Your task to perform on an android device: Clear the cart on walmart. Image 0: 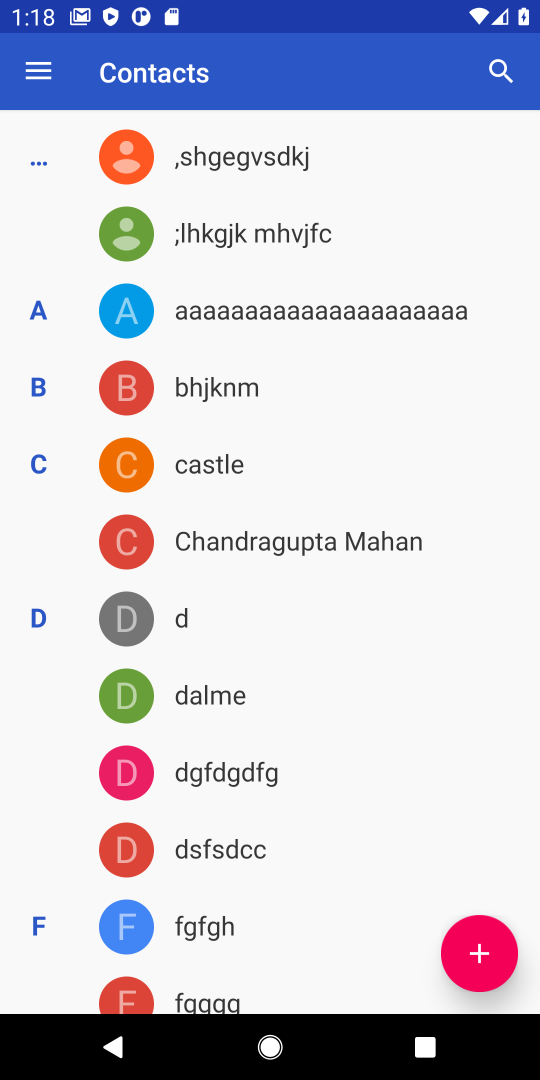
Step 0: press home button
Your task to perform on an android device: Clear the cart on walmart. Image 1: 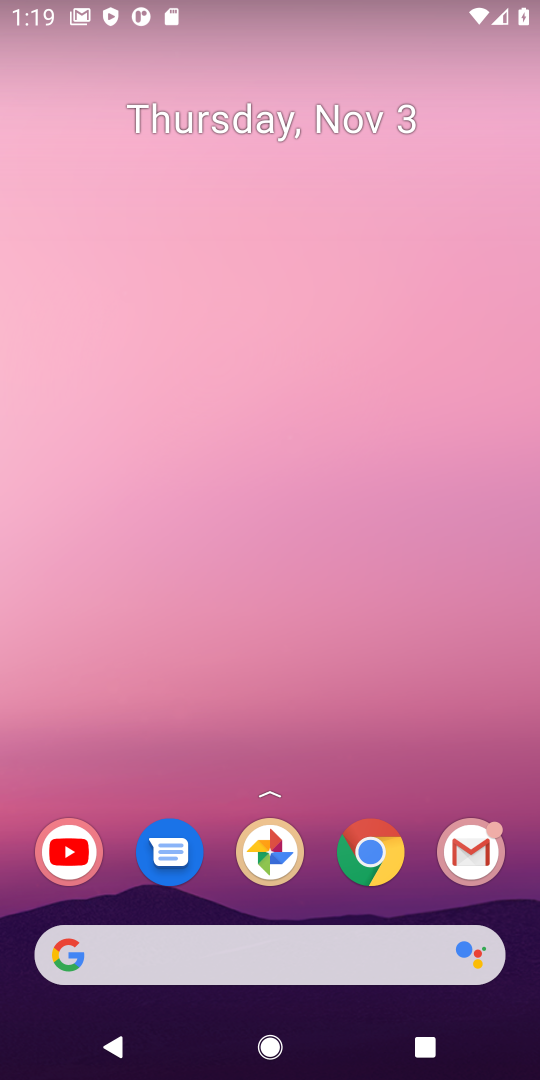
Step 1: click (371, 870)
Your task to perform on an android device: Clear the cart on walmart. Image 2: 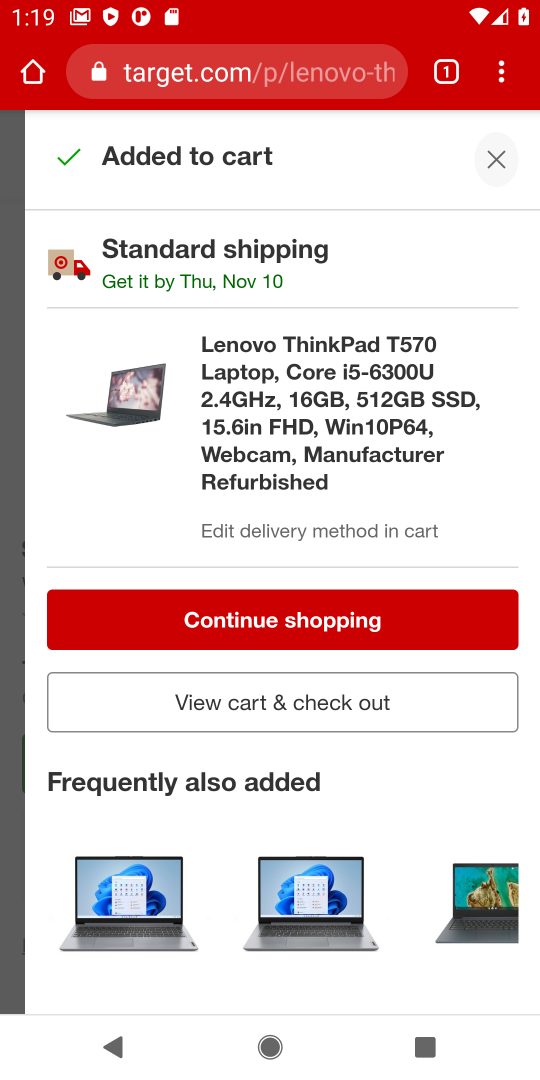
Step 2: click (226, 93)
Your task to perform on an android device: Clear the cart on walmart. Image 3: 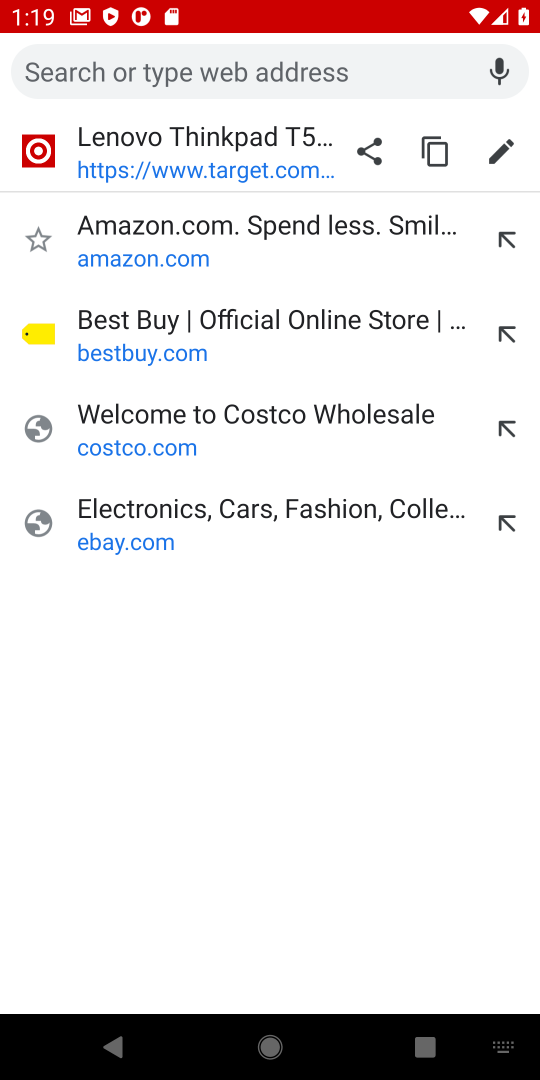
Step 3: type "walmart.com"
Your task to perform on an android device: Clear the cart on walmart. Image 4: 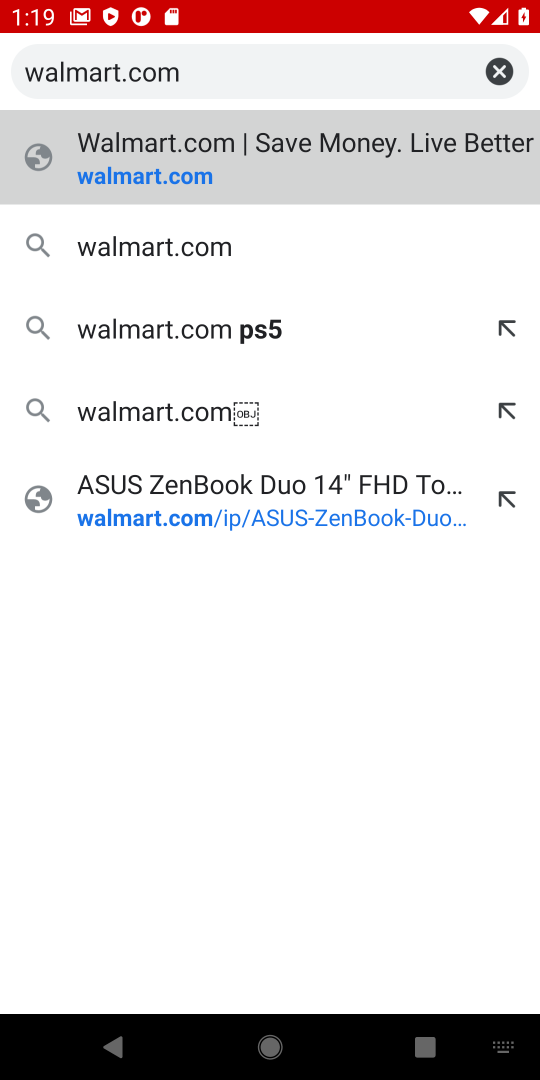
Step 4: click (137, 183)
Your task to perform on an android device: Clear the cart on walmart. Image 5: 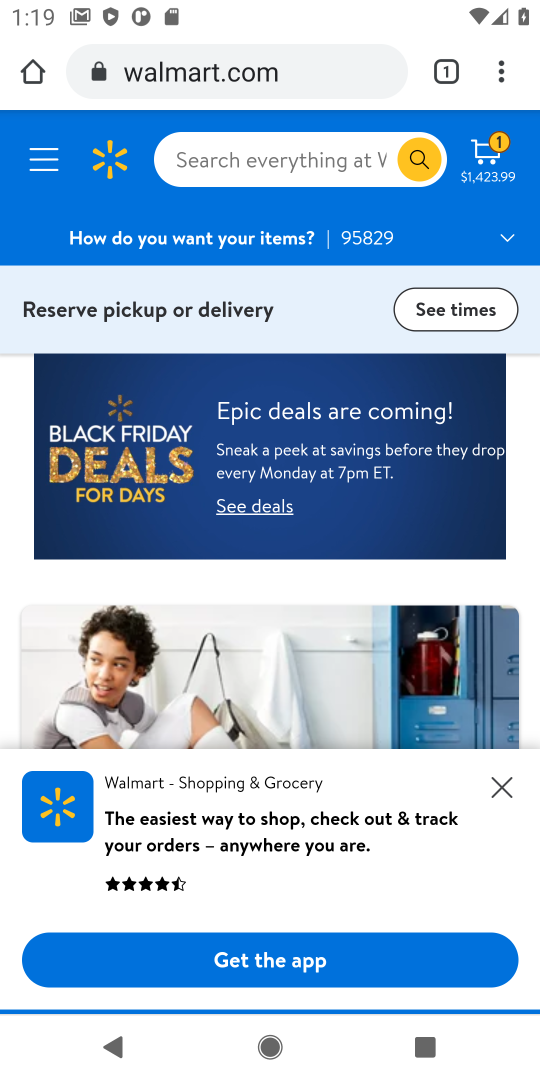
Step 5: click (493, 153)
Your task to perform on an android device: Clear the cart on walmart. Image 6: 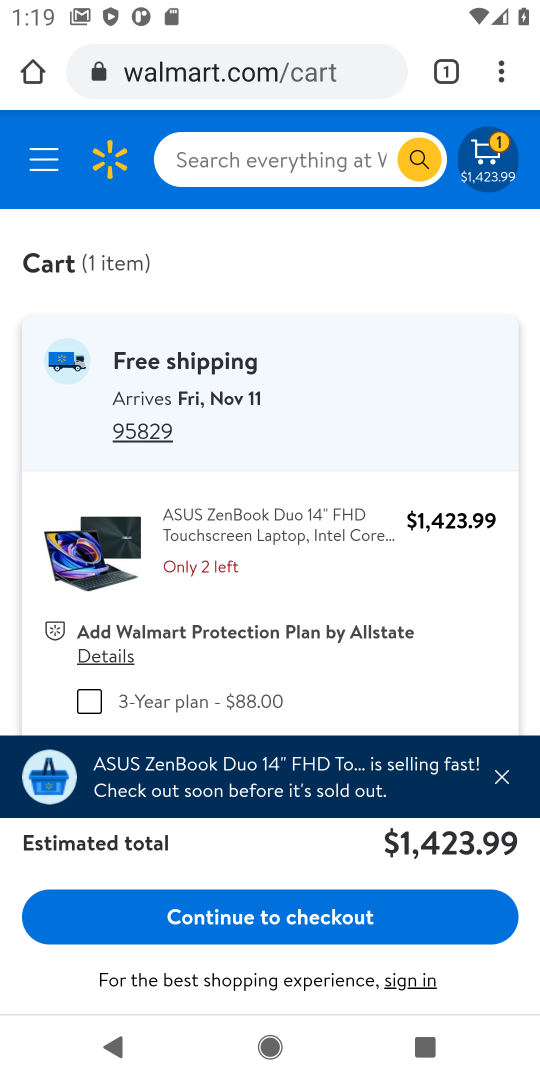
Step 6: drag from (301, 592) to (329, 372)
Your task to perform on an android device: Clear the cart on walmart. Image 7: 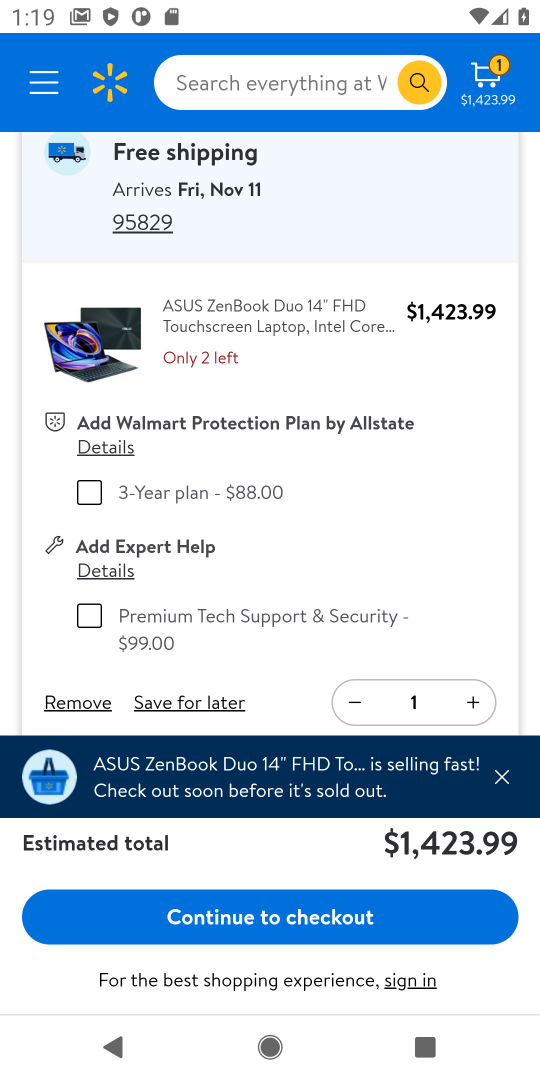
Step 7: click (76, 706)
Your task to perform on an android device: Clear the cart on walmart. Image 8: 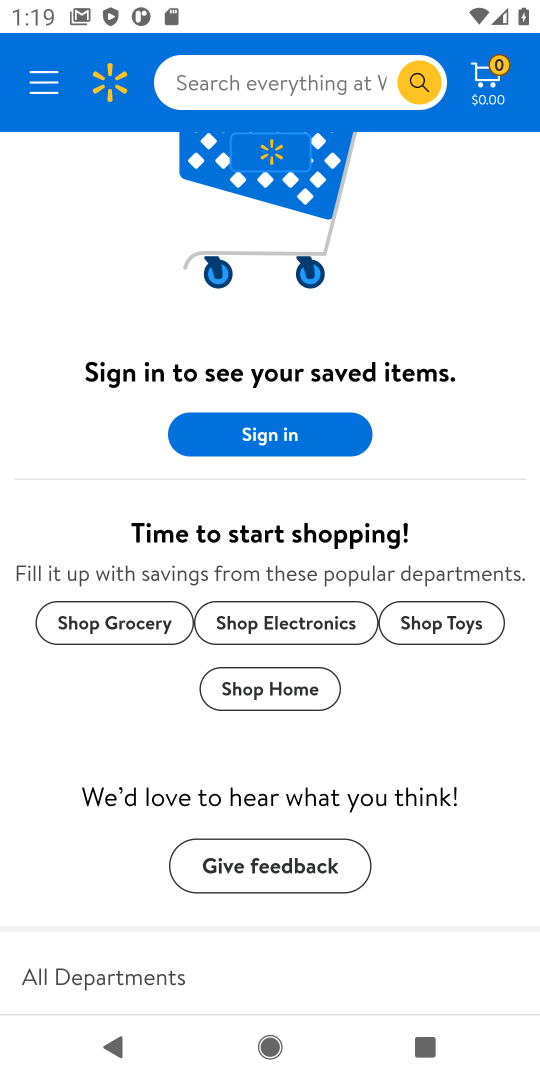
Step 8: task complete